Your task to perform on an android device: Find coffee shops on Maps Image 0: 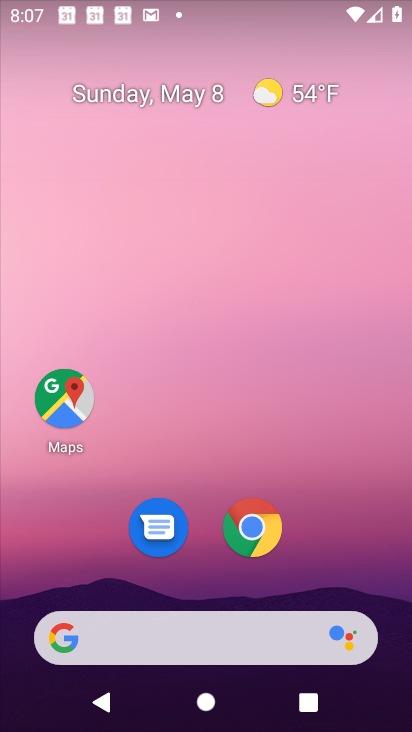
Step 0: drag from (296, 567) to (270, 119)
Your task to perform on an android device: Find coffee shops on Maps Image 1: 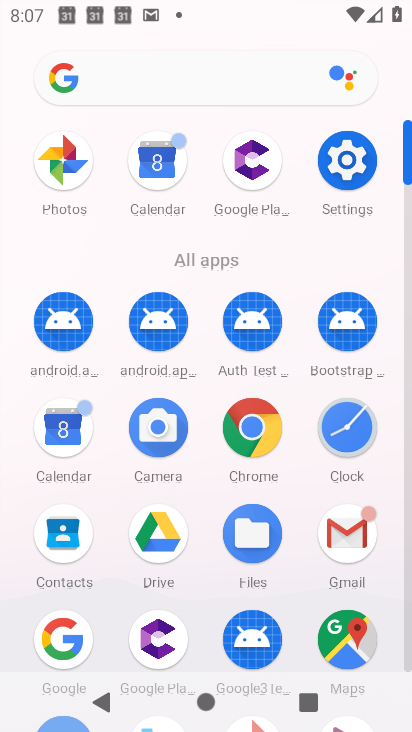
Step 1: click (354, 635)
Your task to perform on an android device: Find coffee shops on Maps Image 2: 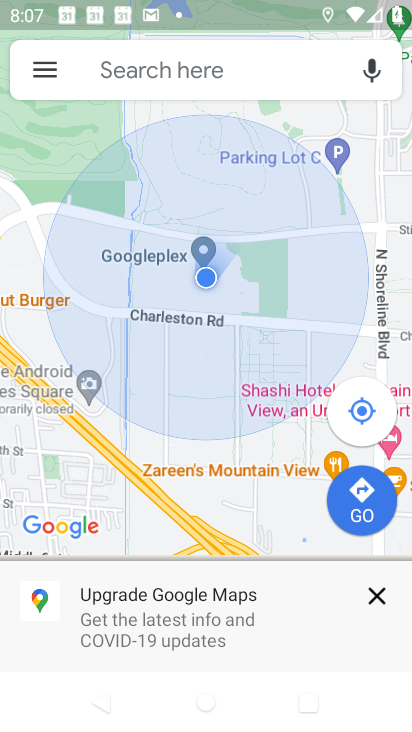
Step 2: click (147, 69)
Your task to perform on an android device: Find coffee shops on Maps Image 3: 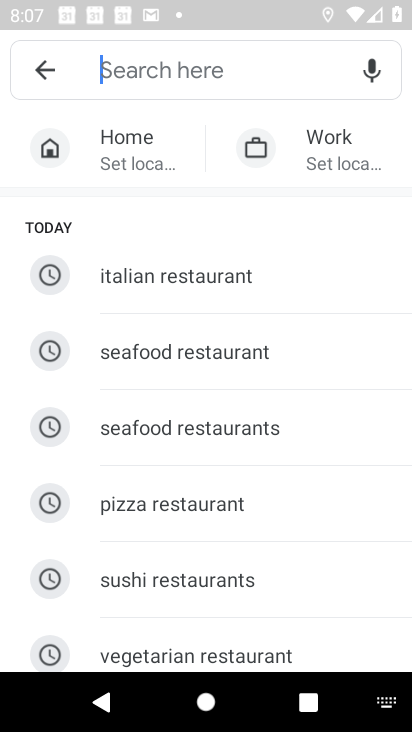
Step 3: type "coffee shops"
Your task to perform on an android device: Find coffee shops on Maps Image 4: 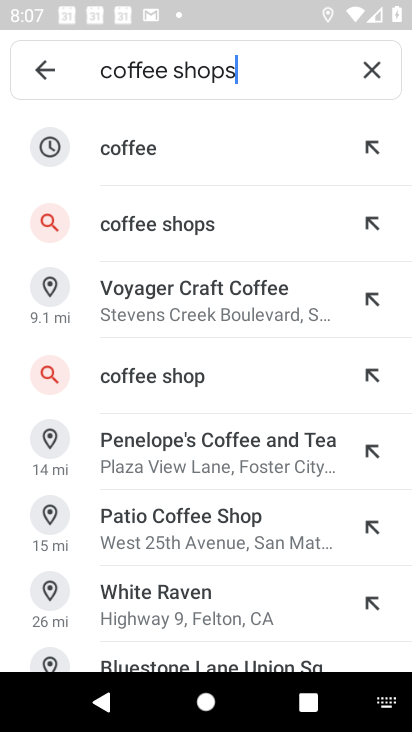
Step 4: click (168, 233)
Your task to perform on an android device: Find coffee shops on Maps Image 5: 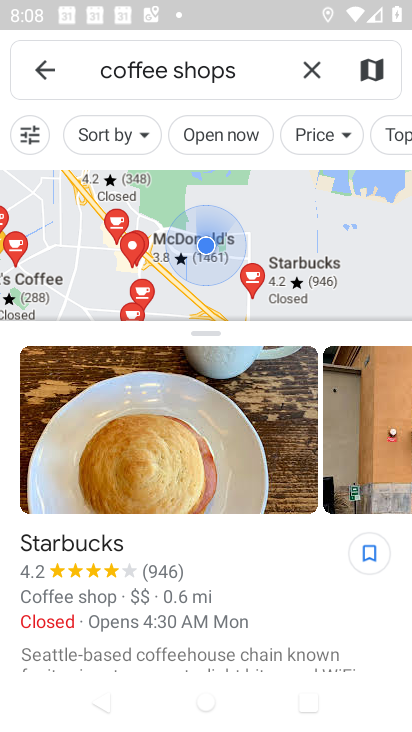
Step 5: task complete